Your task to perform on an android device: turn on improve location accuracy Image 0: 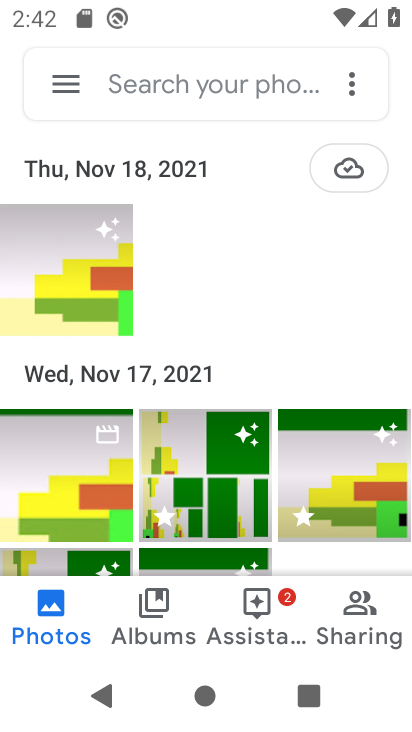
Step 0: press home button
Your task to perform on an android device: turn on improve location accuracy Image 1: 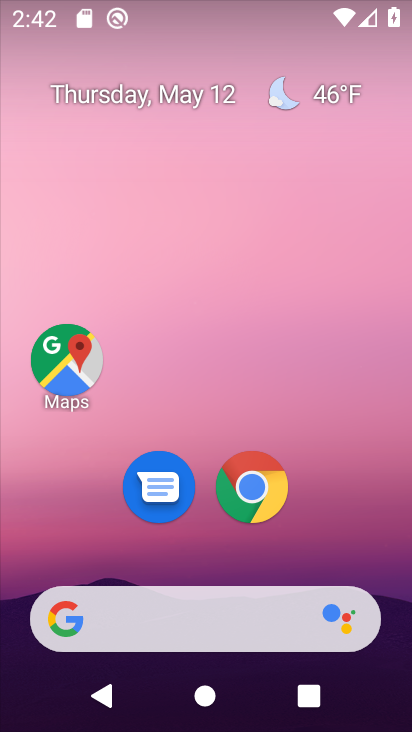
Step 1: drag from (335, 551) to (396, 33)
Your task to perform on an android device: turn on improve location accuracy Image 2: 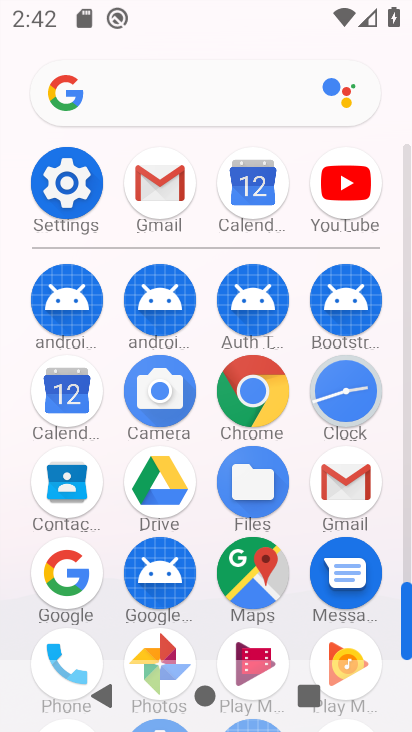
Step 2: click (62, 182)
Your task to perform on an android device: turn on improve location accuracy Image 3: 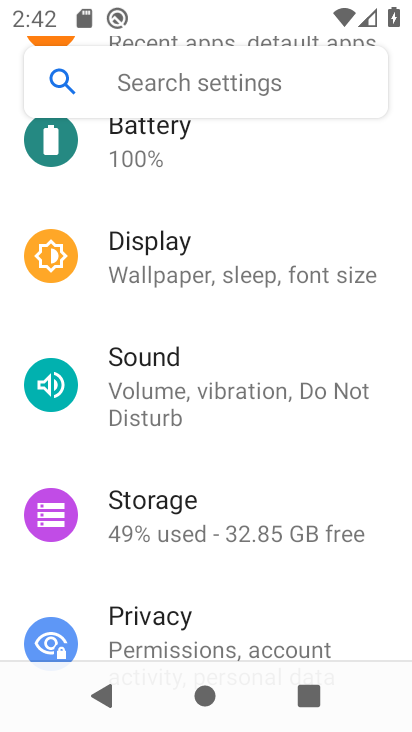
Step 3: drag from (151, 199) to (185, 73)
Your task to perform on an android device: turn on improve location accuracy Image 4: 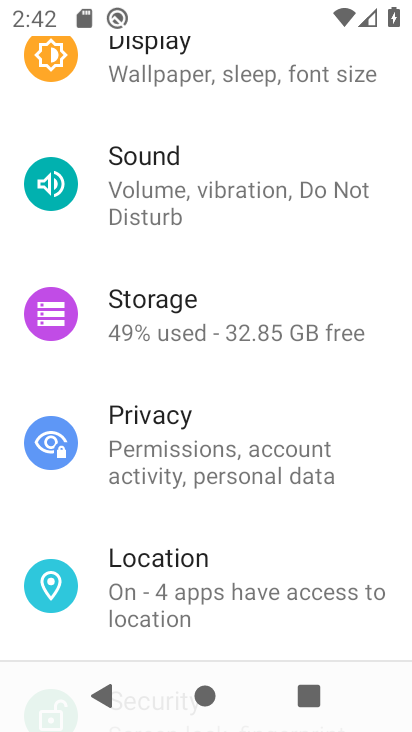
Step 4: click (163, 557)
Your task to perform on an android device: turn on improve location accuracy Image 5: 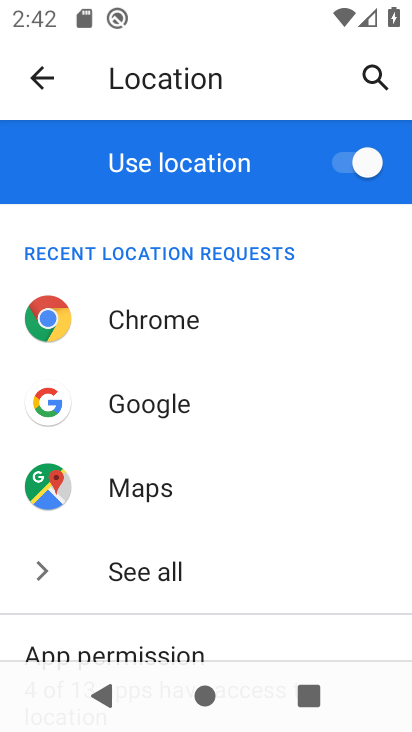
Step 5: drag from (253, 615) to (241, 243)
Your task to perform on an android device: turn on improve location accuracy Image 6: 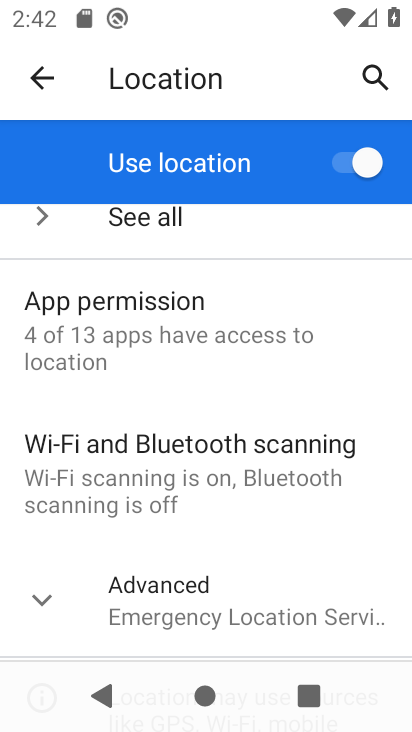
Step 6: click (156, 629)
Your task to perform on an android device: turn on improve location accuracy Image 7: 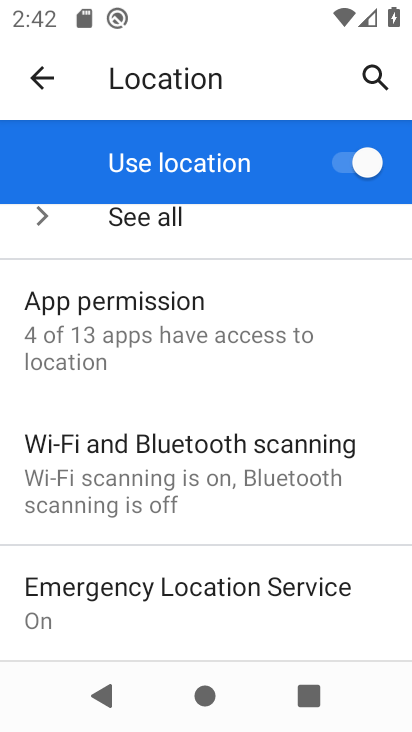
Step 7: drag from (249, 598) to (246, 265)
Your task to perform on an android device: turn on improve location accuracy Image 8: 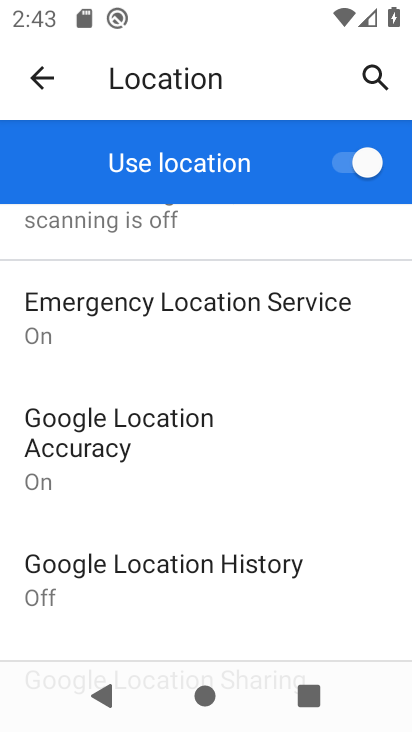
Step 8: click (163, 483)
Your task to perform on an android device: turn on improve location accuracy Image 9: 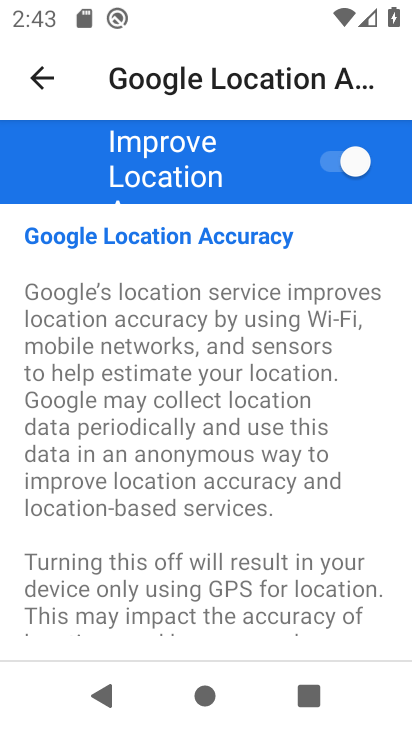
Step 9: task complete